Your task to perform on an android device: open sync settings in chrome Image 0: 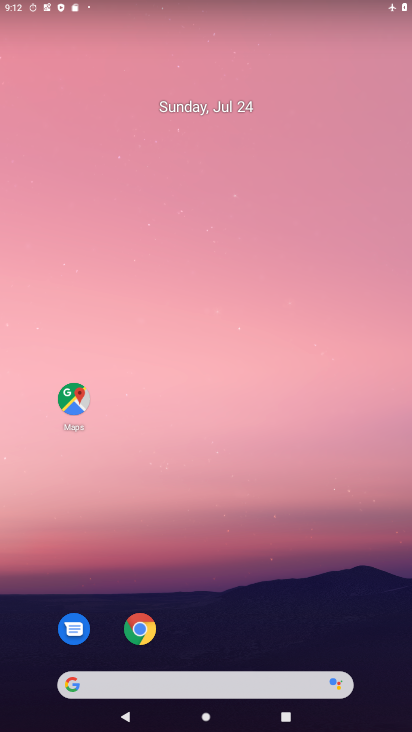
Step 0: drag from (230, 642) to (323, 120)
Your task to perform on an android device: open sync settings in chrome Image 1: 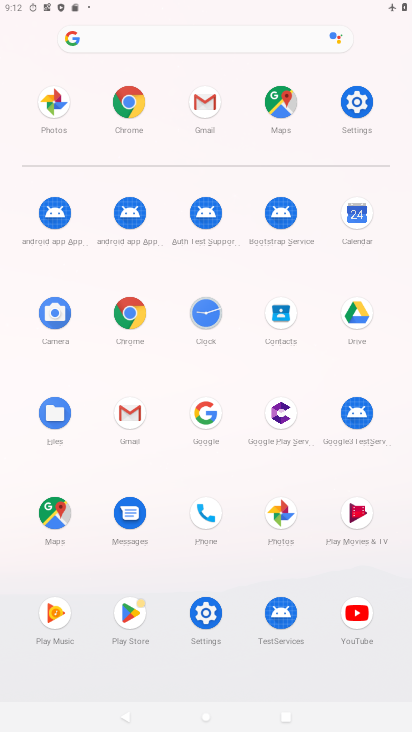
Step 1: click (141, 328)
Your task to perform on an android device: open sync settings in chrome Image 2: 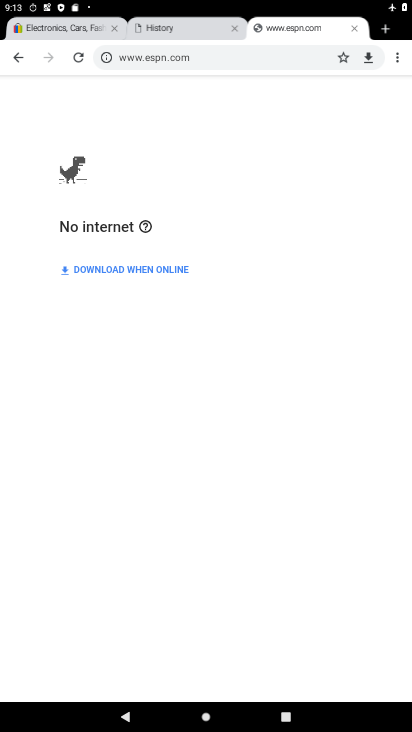
Step 2: click (399, 60)
Your task to perform on an android device: open sync settings in chrome Image 3: 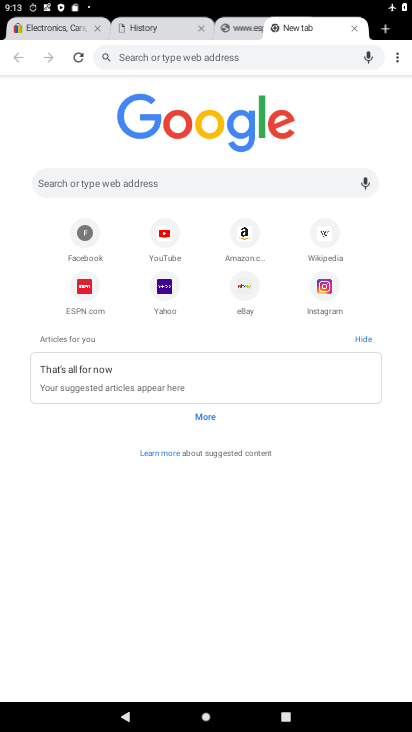
Step 3: click (397, 59)
Your task to perform on an android device: open sync settings in chrome Image 4: 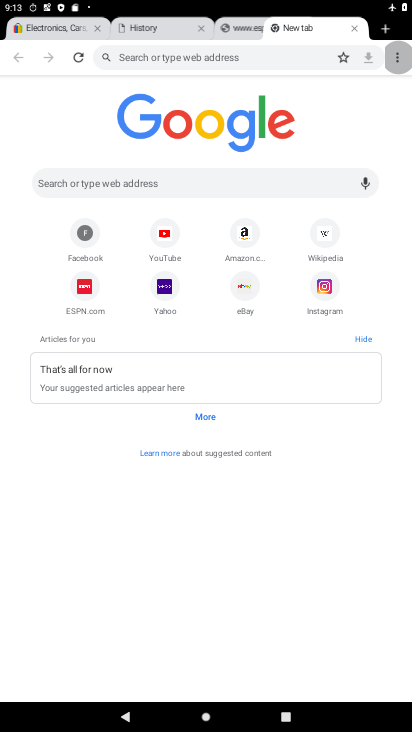
Step 4: click (397, 59)
Your task to perform on an android device: open sync settings in chrome Image 5: 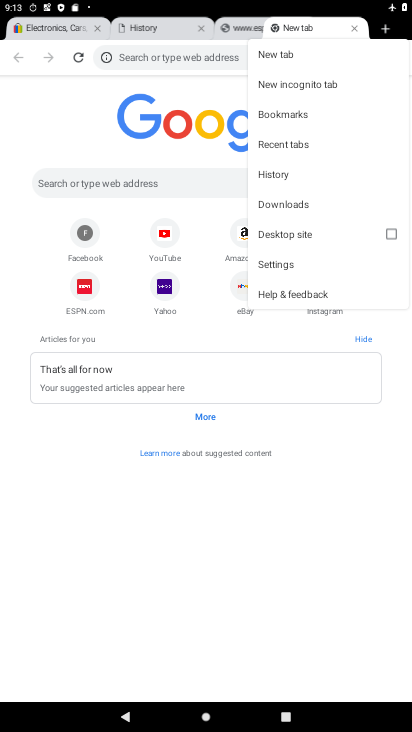
Step 5: click (297, 265)
Your task to perform on an android device: open sync settings in chrome Image 6: 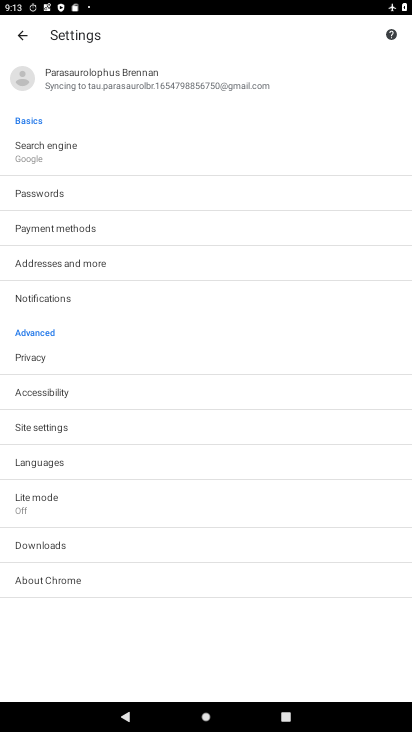
Step 6: click (101, 80)
Your task to perform on an android device: open sync settings in chrome Image 7: 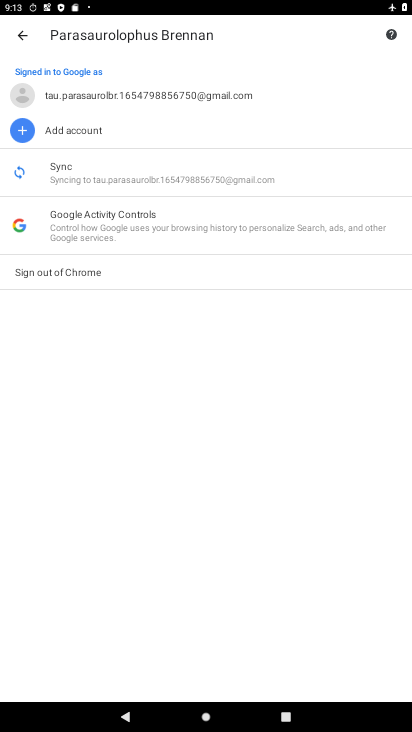
Step 7: click (96, 177)
Your task to perform on an android device: open sync settings in chrome Image 8: 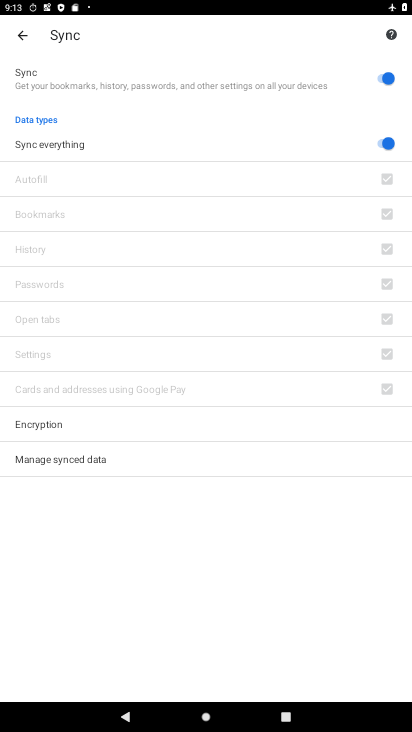
Step 8: task complete